Your task to perform on an android device: toggle airplane mode Image 0: 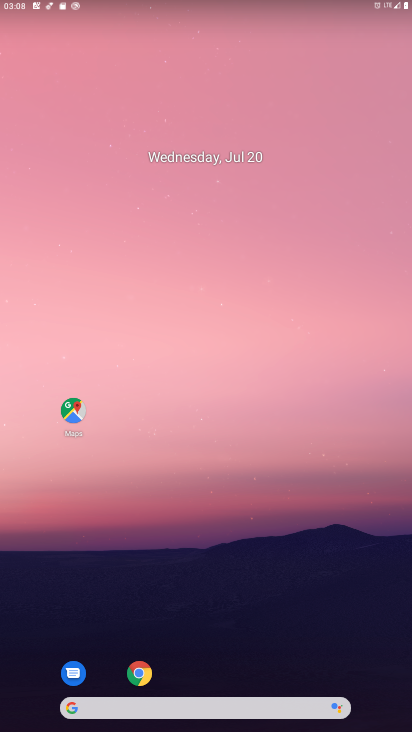
Step 0: drag from (202, 626) to (247, 143)
Your task to perform on an android device: toggle airplane mode Image 1: 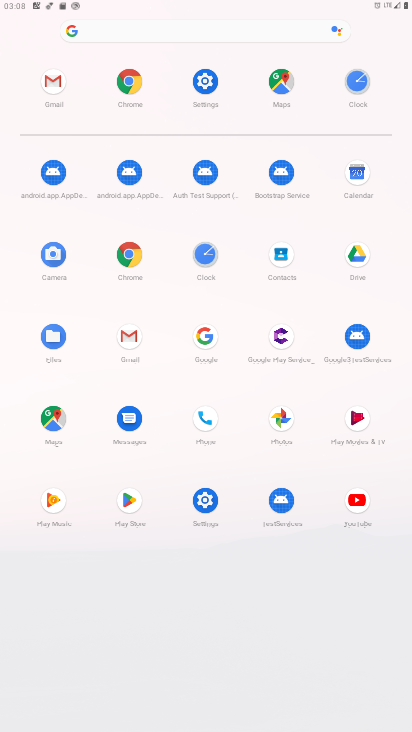
Step 1: click (205, 497)
Your task to perform on an android device: toggle airplane mode Image 2: 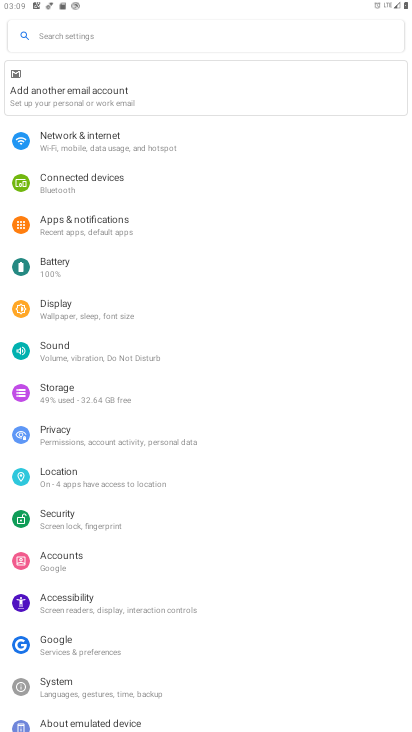
Step 2: click (113, 146)
Your task to perform on an android device: toggle airplane mode Image 3: 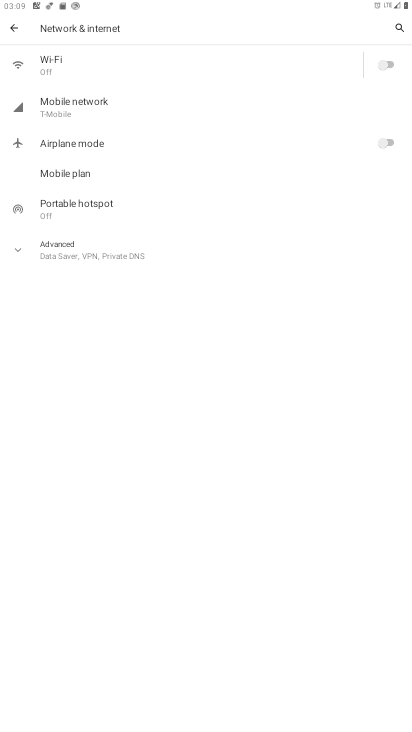
Step 3: click (390, 139)
Your task to perform on an android device: toggle airplane mode Image 4: 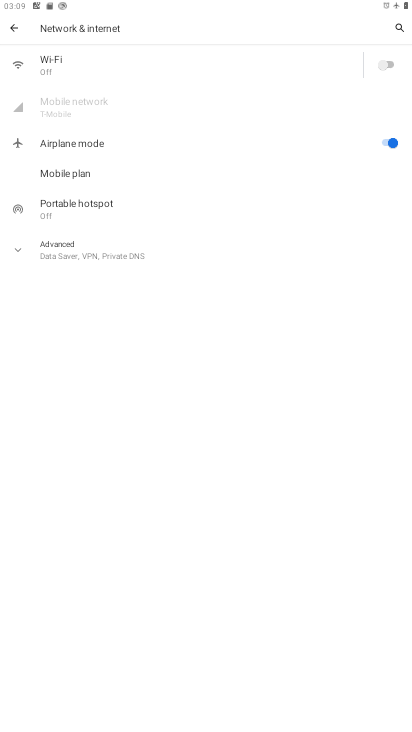
Step 4: task complete